Your task to perform on an android device: Open privacy settings Image 0: 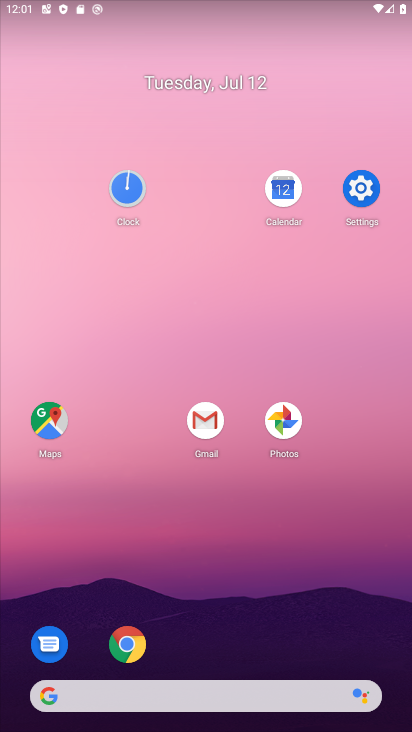
Step 0: click (366, 182)
Your task to perform on an android device: Open privacy settings Image 1: 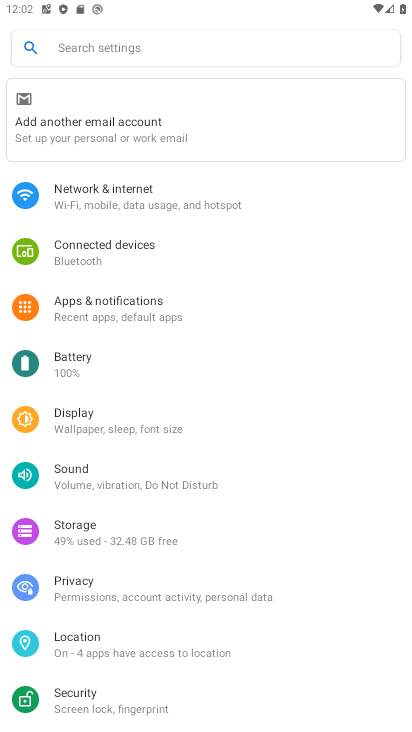
Step 1: drag from (193, 397) to (180, 173)
Your task to perform on an android device: Open privacy settings Image 2: 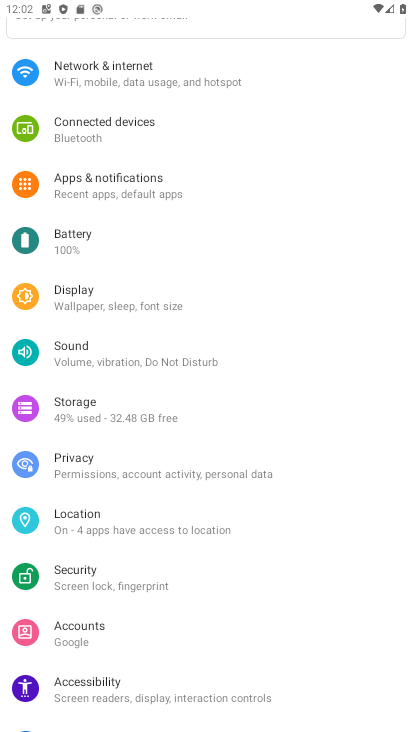
Step 2: click (141, 456)
Your task to perform on an android device: Open privacy settings Image 3: 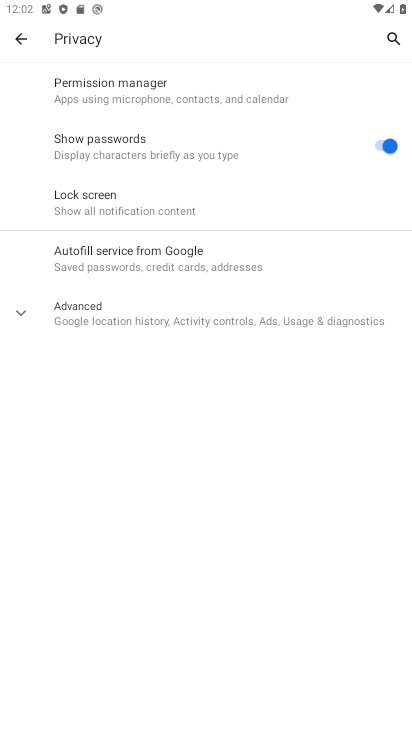
Step 3: task complete